Your task to perform on an android device: Open sound settings Image 0: 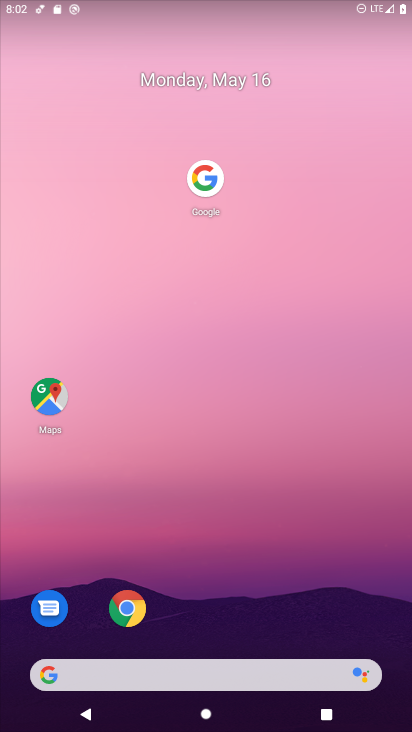
Step 0: drag from (271, 584) to (281, 110)
Your task to perform on an android device: Open sound settings Image 1: 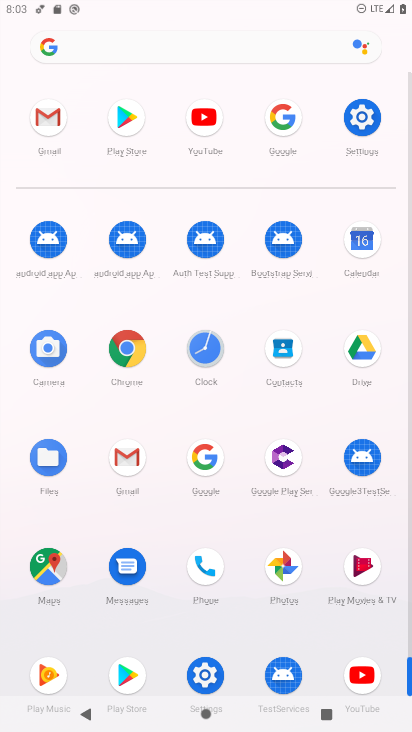
Step 1: click (361, 116)
Your task to perform on an android device: Open sound settings Image 2: 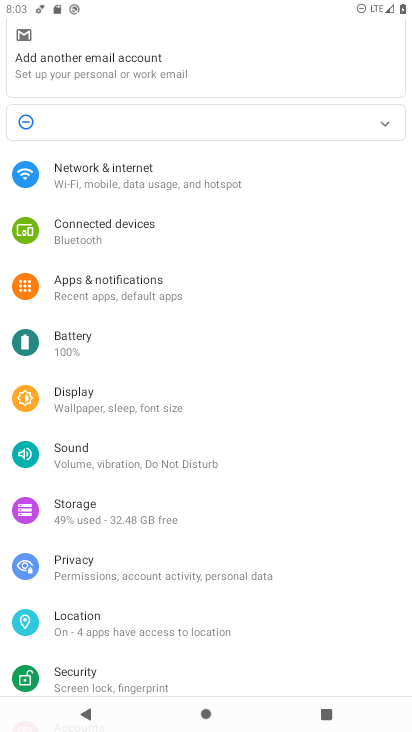
Step 2: click (102, 458)
Your task to perform on an android device: Open sound settings Image 3: 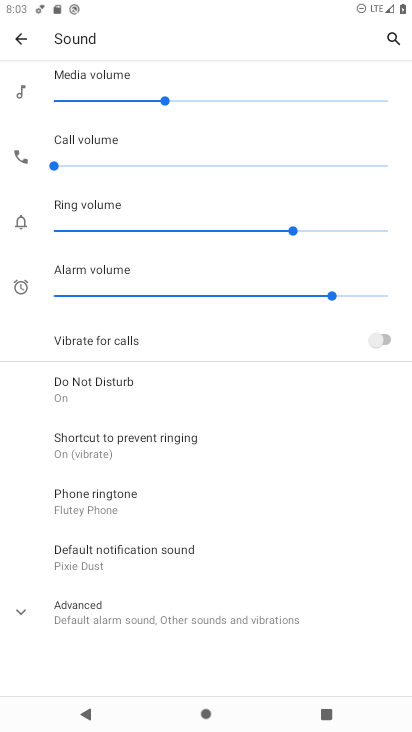
Step 3: task complete